Your task to perform on an android device: Clear all items from cart on target.com. Search for asus rog on target.com, select the first entry, and add it to the cart. Image 0: 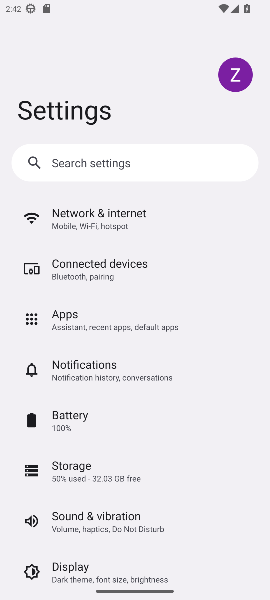
Step 0: press home button
Your task to perform on an android device: Clear all items from cart on target.com. Search for asus rog on target.com, select the first entry, and add it to the cart. Image 1: 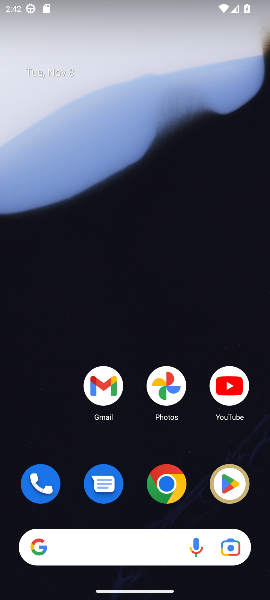
Step 1: click (174, 468)
Your task to perform on an android device: Clear all items from cart on target.com. Search for asus rog on target.com, select the first entry, and add it to the cart. Image 2: 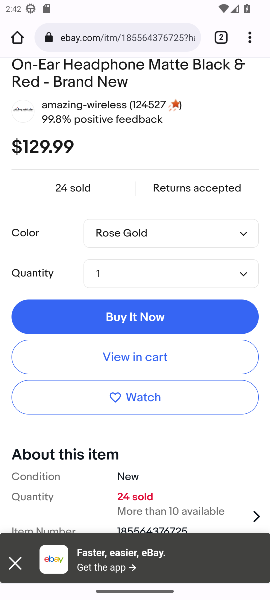
Step 2: click (101, 39)
Your task to perform on an android device: Clear all items from cart on target.com. Search for asus rog on target.com, select the first entry, and add it to the cart. Image 3: 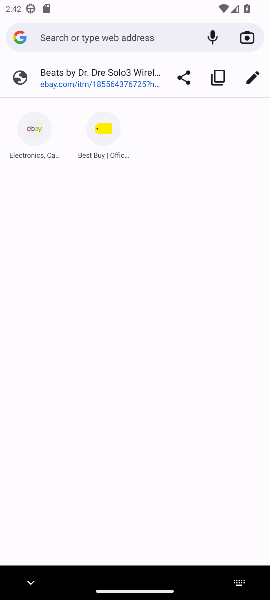
Step 3: type "target"
Your task to perform on an android device: Clear all items from cart on target.com. Search for asus rog on target.com, select the first entry, and add it to the cart. Image 4: 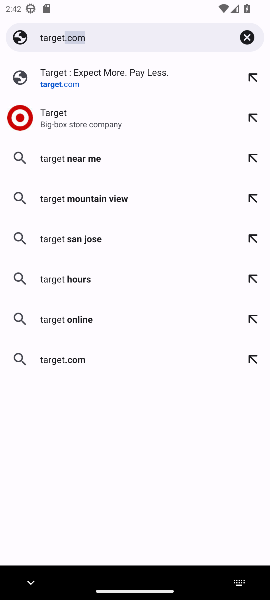
Step 4: click (83, 114)
Your task to perform on an android device: Clear all items from cart on target.com. Search for asus rog on target.com, select the first entry, and add it to the cart. Image 5: 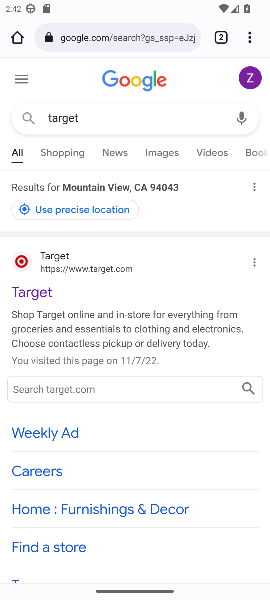
Step 5: click (42, 305)
Your task to perform on an android device: Clear all items from cart on target.com. Search for asus rog on target.com, select the first entry, and add it to the cart. Image 6: 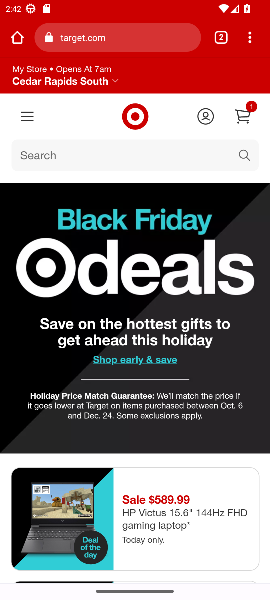
Step 6: click (247, 113)
Your task to perform on an android device: Clear all items from cart on target.com. Search for asus rog on target.com, select the first entry, and add it to the cart. Image 7: 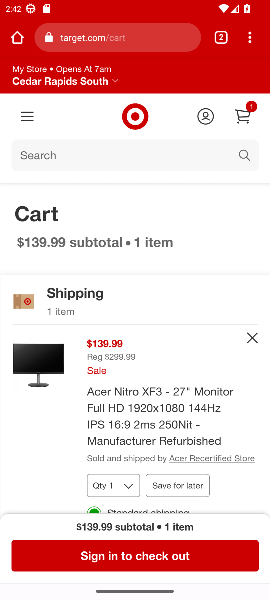
Step 7: click (255, 338)
Your task to perform on an android device: Clear all items from cart on target.com. Search for asus rog on target.com, select the first entry, and add it to the cart. Image 8: 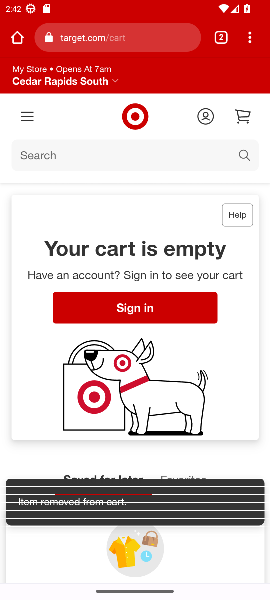
Step 8: click (74, 155)
Your task to perform on an android device: Clear all items from cart on target.com. Search for asus rog on target.com, select the first entry, and add it to the cart. Image 9: 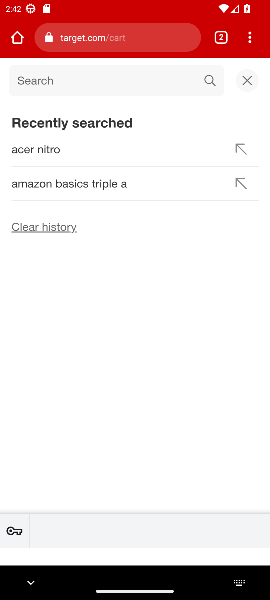
Step 9: type "asus rog"
Your task to perform on an android device: Clear all items from cart on target.com. Search for asus rog on target.com, select the first entry, and add it to the cart. Image 10: 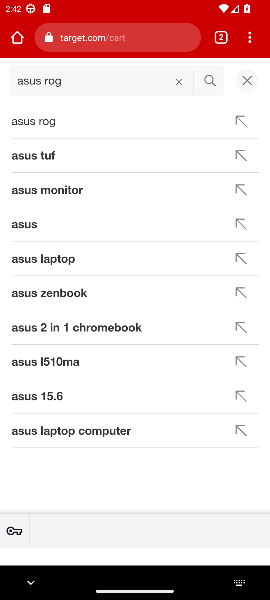
Step 10: click (202, 83)
Your task to perform on an android device: Clear all items from cart on target.com. Search for asus rog on target.com, select the first entry, and add it to the cart. Image 11: 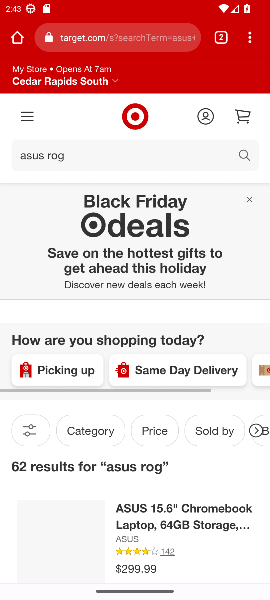
Step 11: drag from (198, 492) to (198, 96)
Your task to perform on an android device: Clear all items from cart on target.com. Search for asus rog on target.com, select the first entry, and add it to the cart. Image 12: 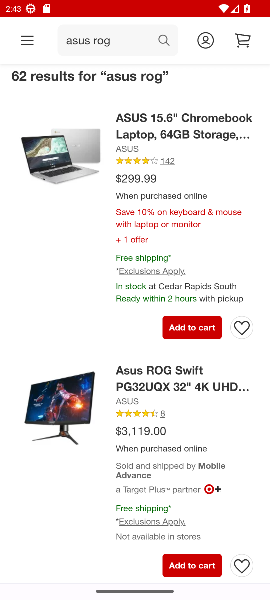
Step 12: click (185, 564)
Your task to perform on an android device: Clear all items from cart on target.com. Search for asus rog on target.com, select the first entry, and add it to the cart. Image 13: 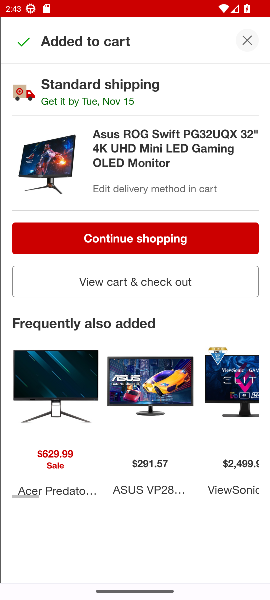
Step 13: task complete